Your task to perform on an android device: set the stopwatch Image 0: 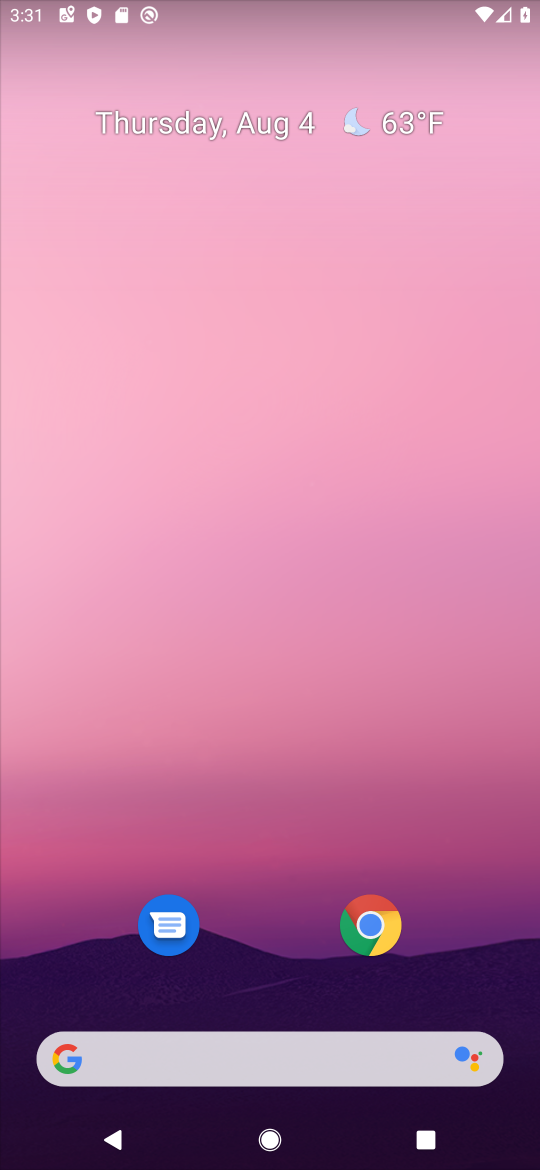
Step 0: drag from (254, 656) to (225, 27)
Your task to perform on an android device: set the stopwatch Image 1: 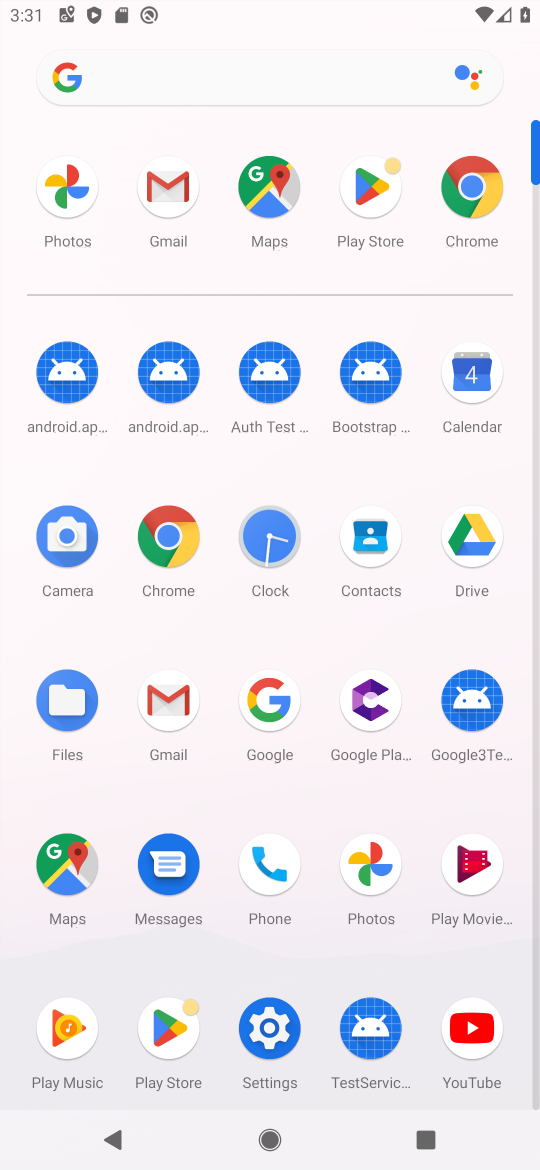
Step 1: click (263, 538)
Your task to perform on an android device: set the stopwatch Image 2: 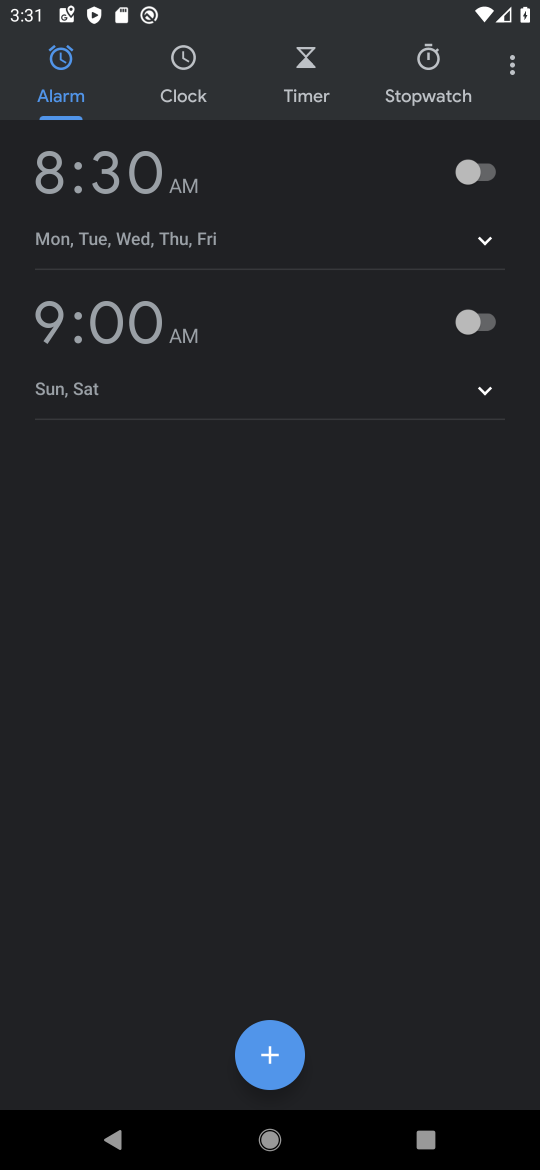
Step 2: click (409, 92)
Your task to perform on an android device: set the stopwatch Image 3: 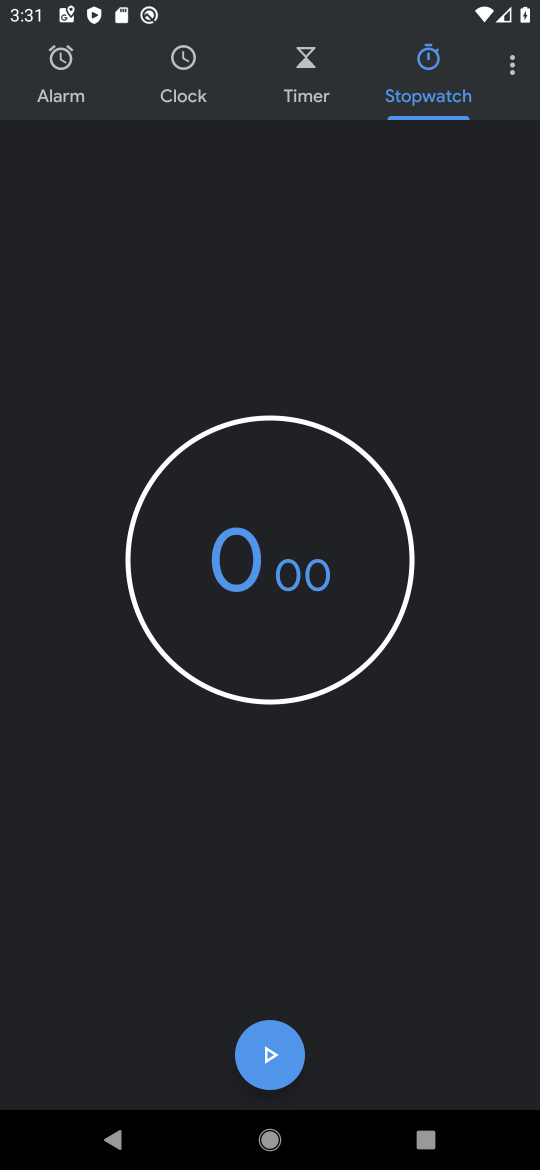
Step 3: task complete